Your task to perform on an android device: turn off notifications in google photos Image 0: 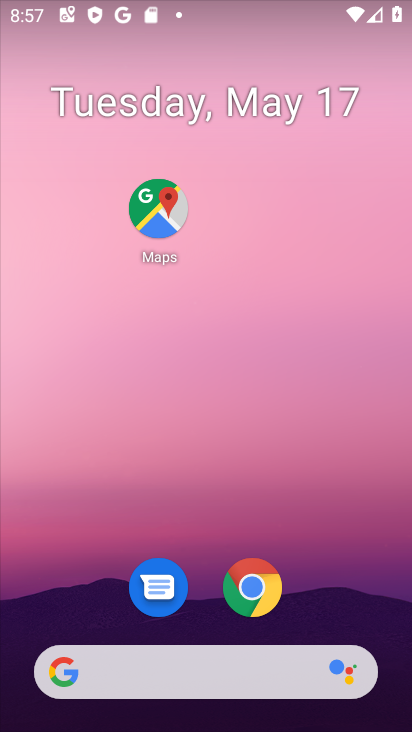
Step 0: drag from (48, 632) to (239, 304)
Your task to perform on an android device: turn off notifications in google photos Image 1: 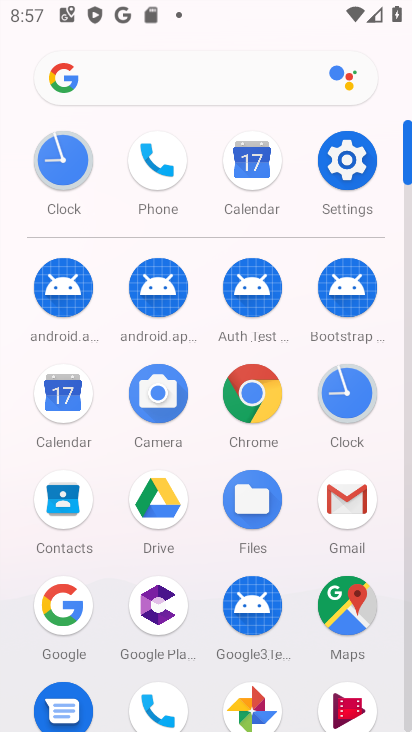
Step 1: click (258, 699)
Your task to perform on an android device: turn off notifications in google photos Image 2: 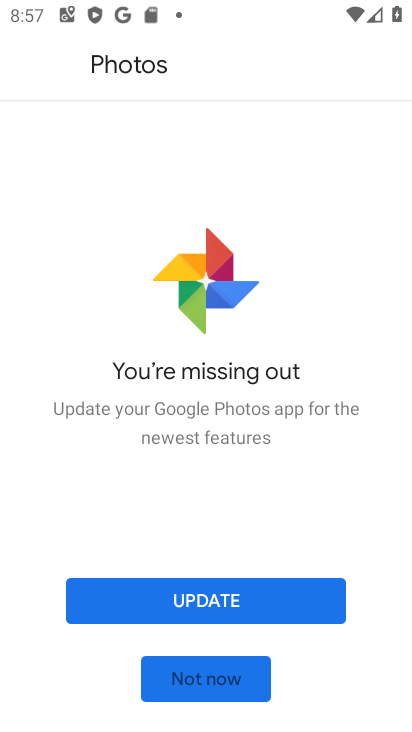
Step 2: click (184, 674)
Your task to perform on an android device: turn off notifications in google photos Image 3: 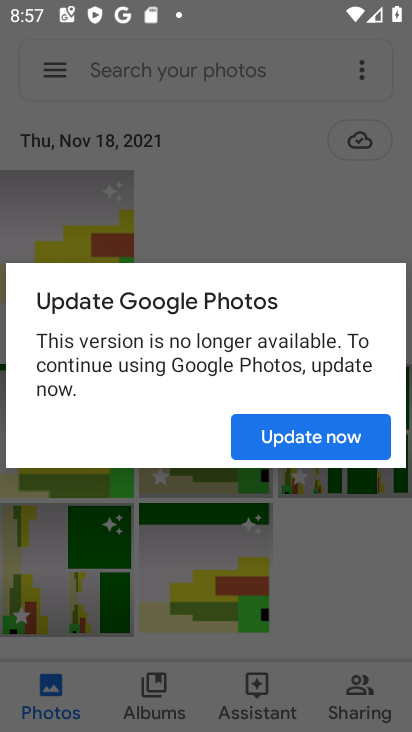
Step 3: click (270, 443)
Your task to perform on an android device: turn off notifications in google photos Image 4: 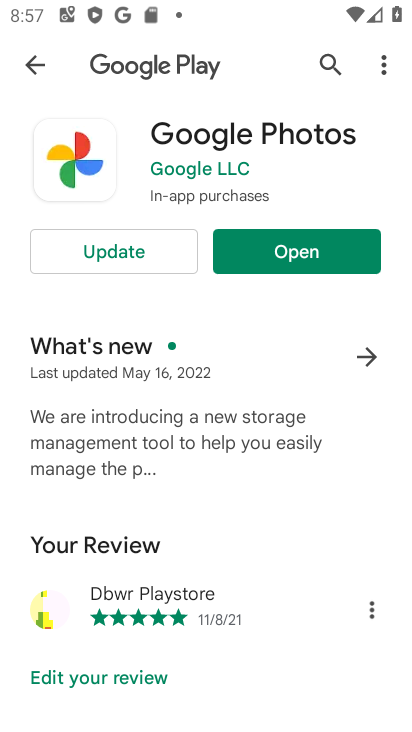
Step 4: click (339, 250)
Your task to perform on an android device: turn off notifications in google photos Image 5: 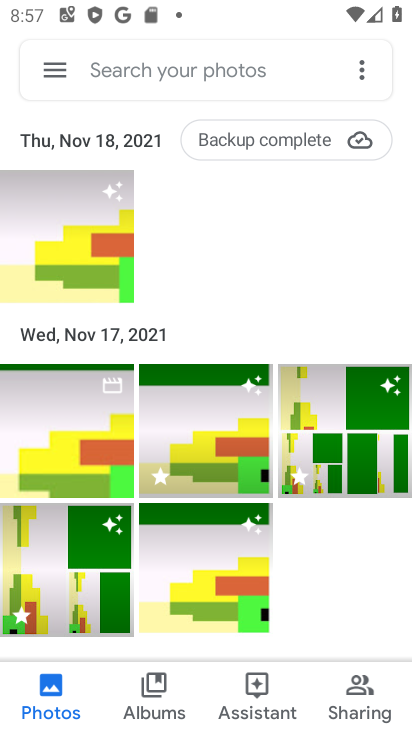
Step 5: click (51, 70)
Your task to perform on an android device: turn off notifications in google photos Image 6: 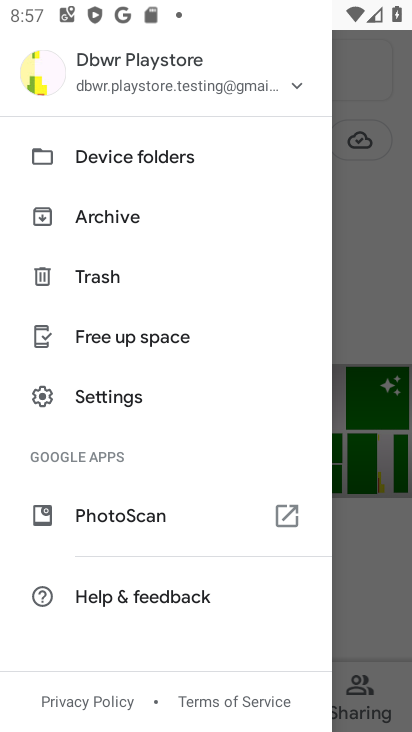
Step 6: click (121, 413)
Your task to perform on an android device: turn off notifications in google photos Image 7: 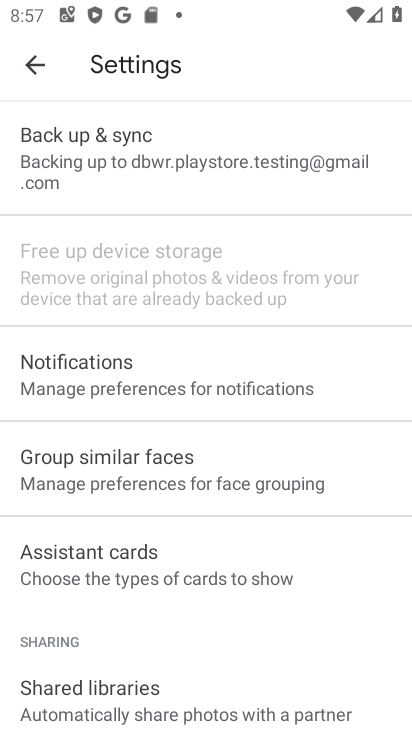
Step 7: drag from (136, 682) to (265, 165)
Your task to perform on an android device: turn off notifications in google photos Image 8: 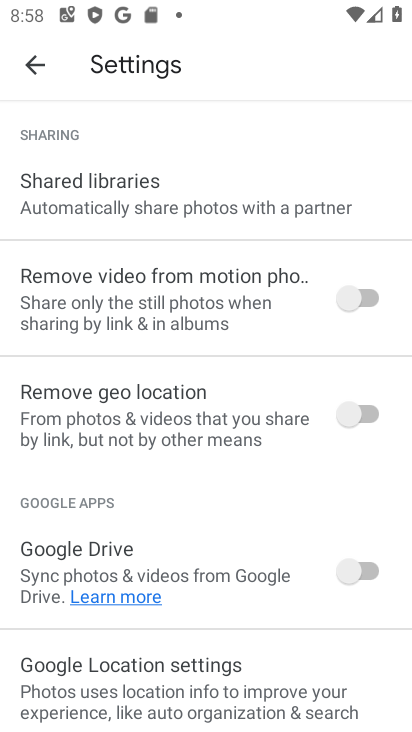
Step 8: drag from (19, 657) to (220, 136)
Your task to perform on an android device: turn off notifications in google photos Image 9: 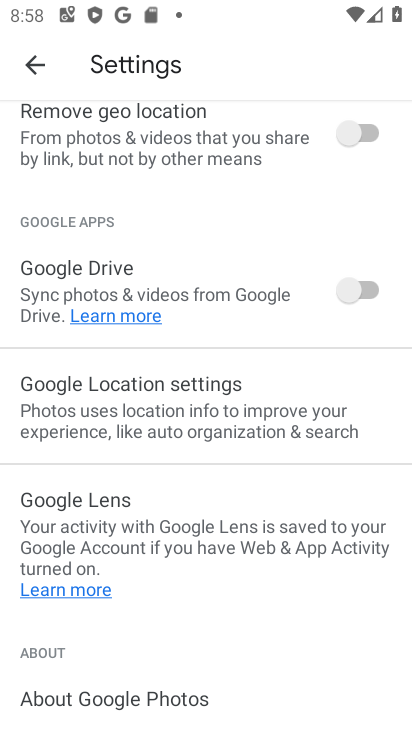
Step 9: drag from (94, 596) to (209, 207)
Your task to perform on an android device: turn off notifications in google photos Image 10: 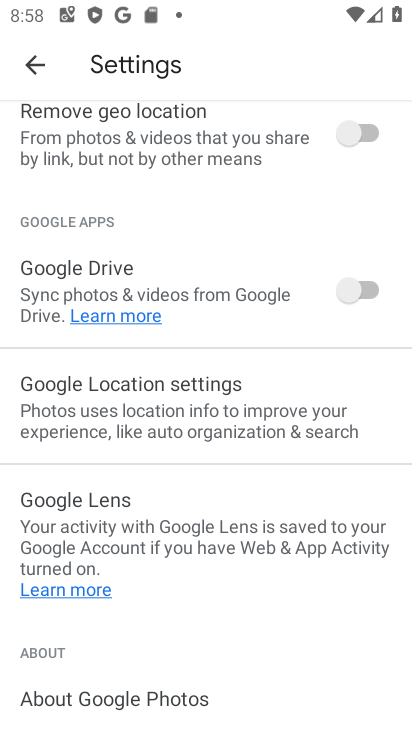
Step 10: drag from (221, 184) to (123, 568)
Your task to perform on an android device: turn off notifications in google photos Image 11: 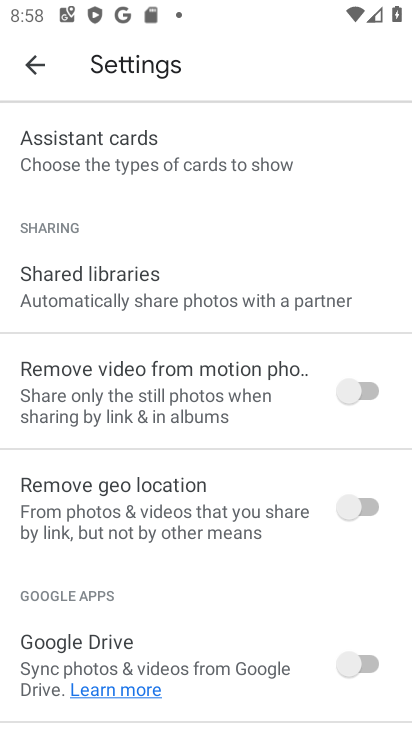
Step 11: drag from (215, 155) to (155, 578)
Your task to perform on an android device: turn off notifications in google photos Image 12: 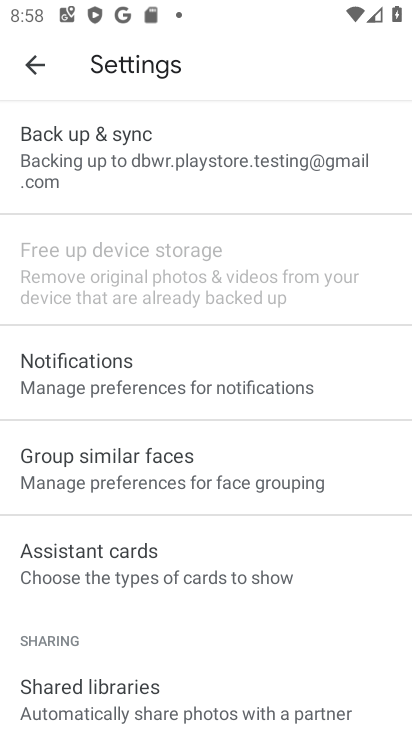
Step 12: drag from (195, 177) to (149, 589)
Your task to perform on an android device: turn off notifications in google photos Image 13: 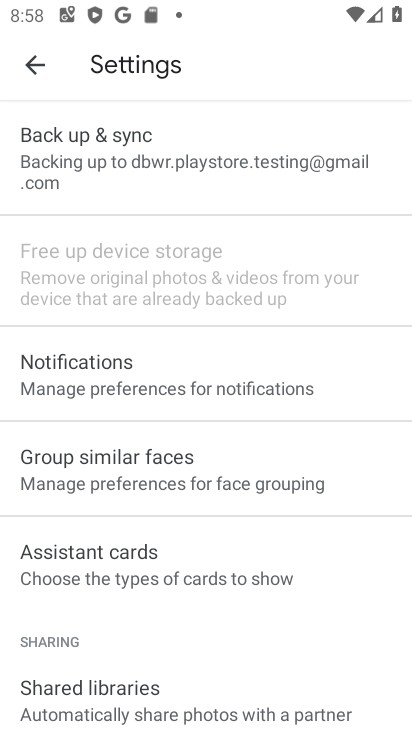
Step 13: click (186, 365)
Your task to perform on an android device: turn off notifications in google photos Image 14: 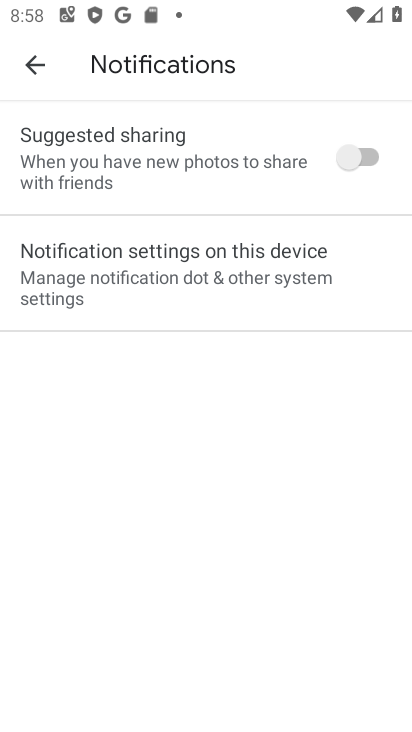
Step 14: click (363, 171)
Your task to perform on an android device: turn off notifications in google photos Image 15: 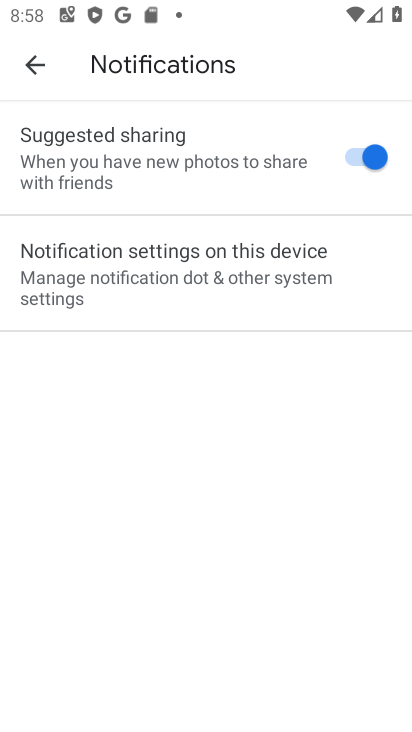
Step 15: click (363, 170)
Your task to perform on an android device: turn off notifications in google photos Image 16: 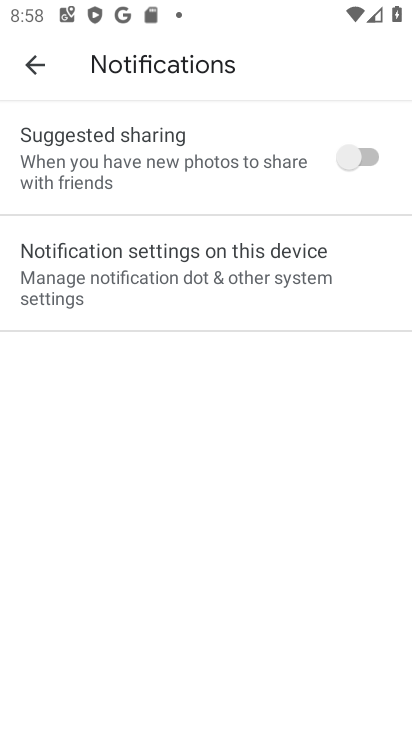
Step 16: task complete